Your task to perform on an android device: Open internet settings Image 0: 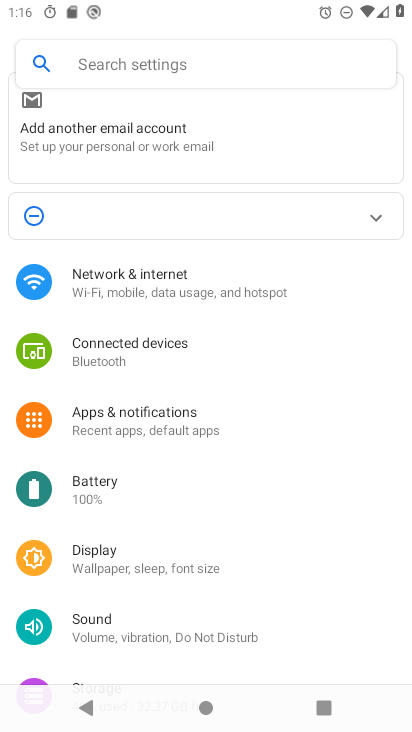
Step 0: click (190, 283)
Your task to perform on an android device: Open internet settings Image 1: 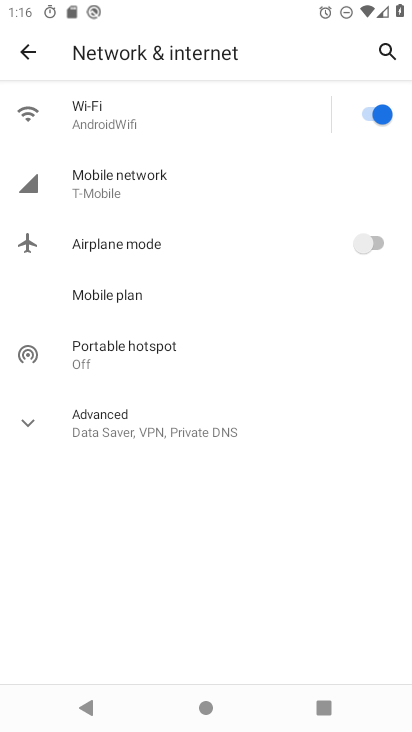
Step 1: task complete